Your task to perform on an android device: check the backup settings in the google photos Image 0: 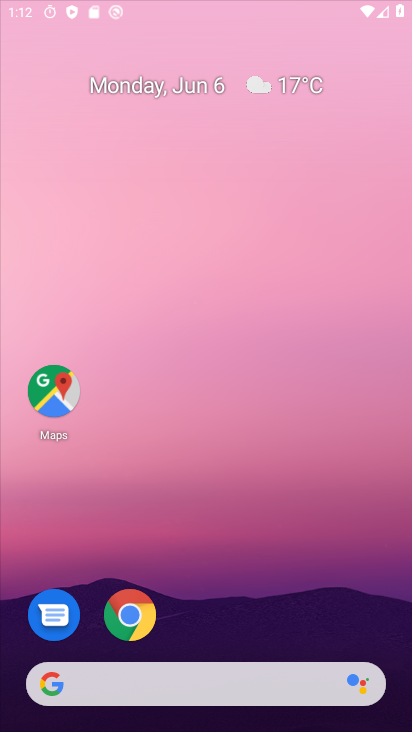
Step 0: click (255, 90)
Your task to perform on an android device: check the backup settings in the google photos Image 1: 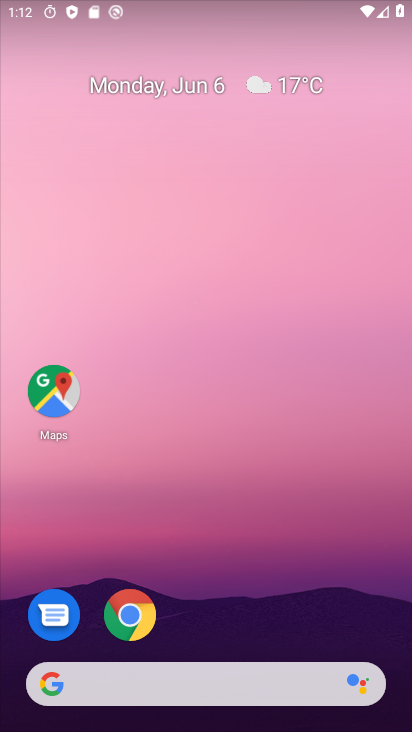
Step 1: drag from (169, 594) to (206, 76)
Your task to perform on an android device: check the backup settings in the google photos Image 2: 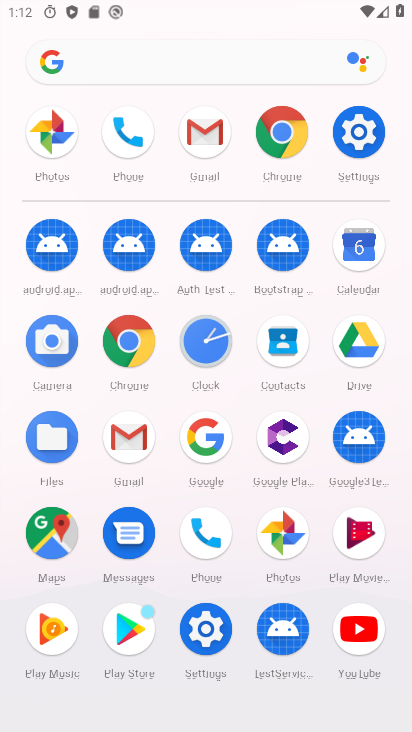
Step 2: click (280, 536)
Your task to perform on an android device: check the backup settings in the google photos Image 3: 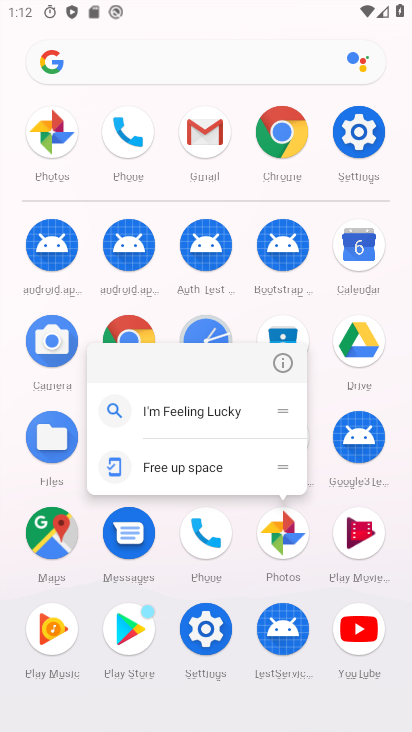
Step 3: click (285, 360)
Your task to perform on an android device: check the backup settings in the google photos Image 4: 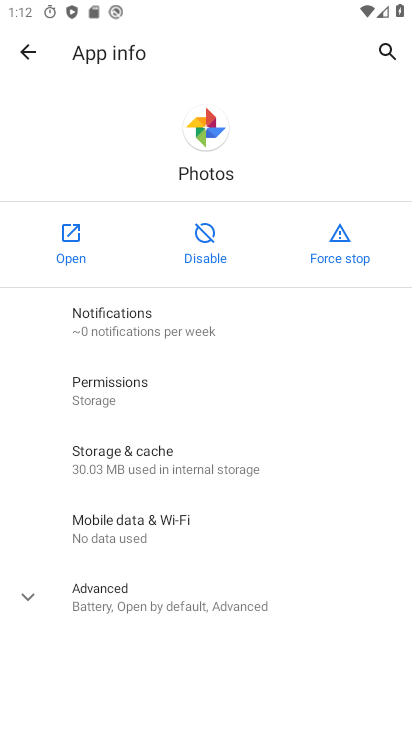
Step 4: click (67, 246)
Your task to perform on an android device: check the backup settings in the google photos Image 5: 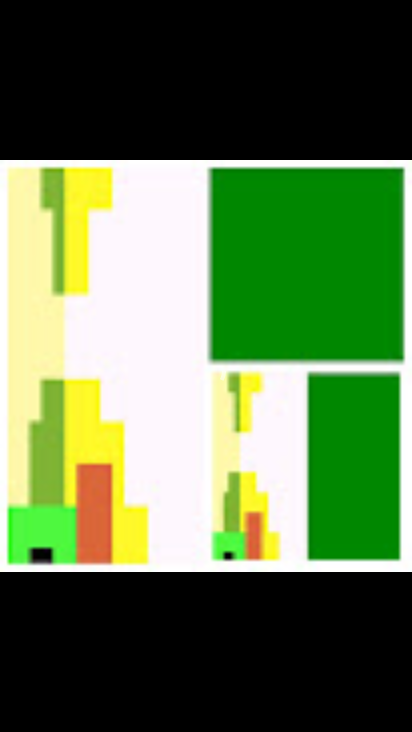
Step 5: press back button
Your task to perform on an android device: check the backup settings in the google photos Image 6: 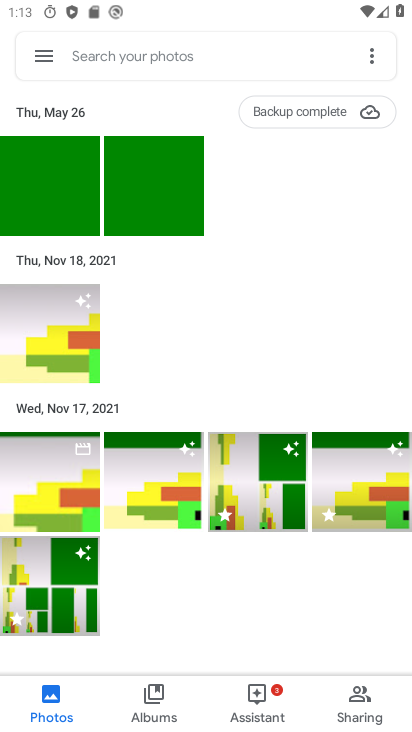
Step 6: drag from (255, 578) to (288, 246)
Your task to perform on an android device: check the backup settings in the google photos Image 7: 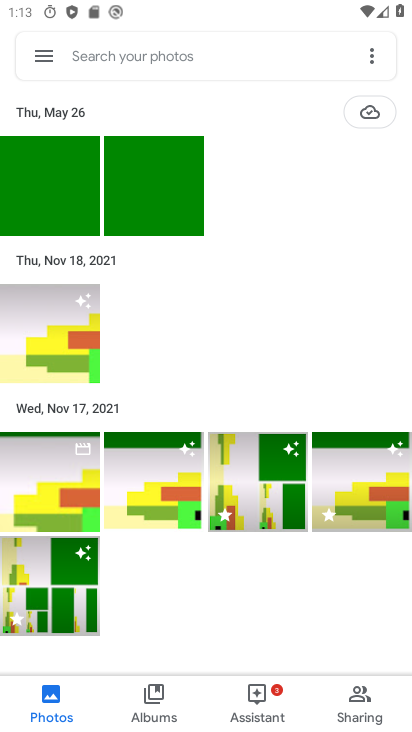
Step 7: click (48, 55)
Your task to perform on an android device: check the backup settings in the google photos Image 8: 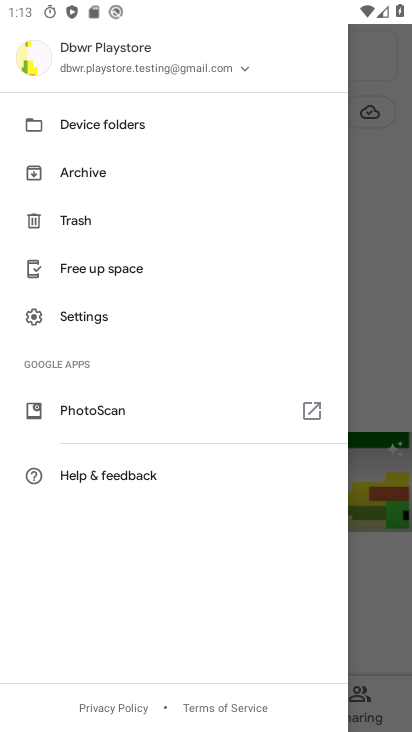
Step 8: click (108, 329)
Your task to perform on an android device: check the backup settings in the google photos Image 9: 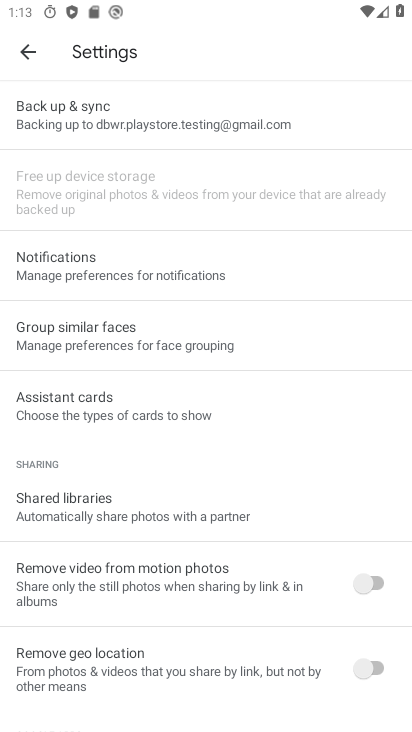
Step 9: drag from (207, 209) to (293, 654)
Your task to perform on an android device: check the backup settings in the google photos Image 10: 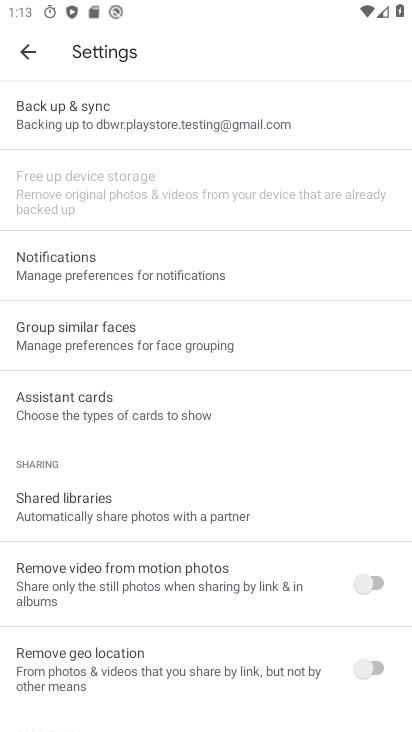
Step 10: click (90, 112)
Your task to perform on an android device: check the backup settings in the google photos Image 11: 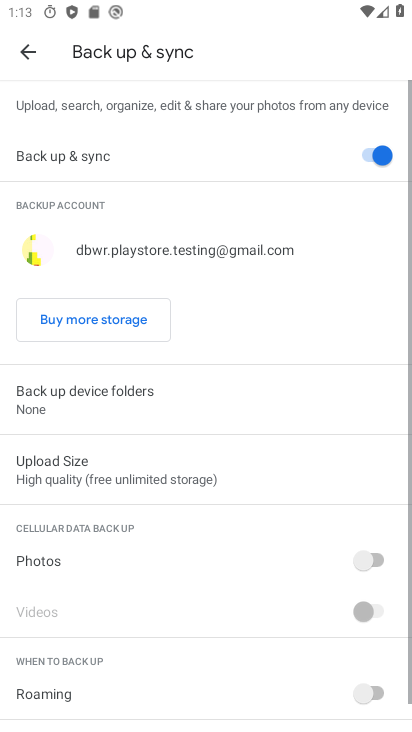
Step 11: task complete